Your task to perform on an android device: search for starred emails in the gmail app Image 0: 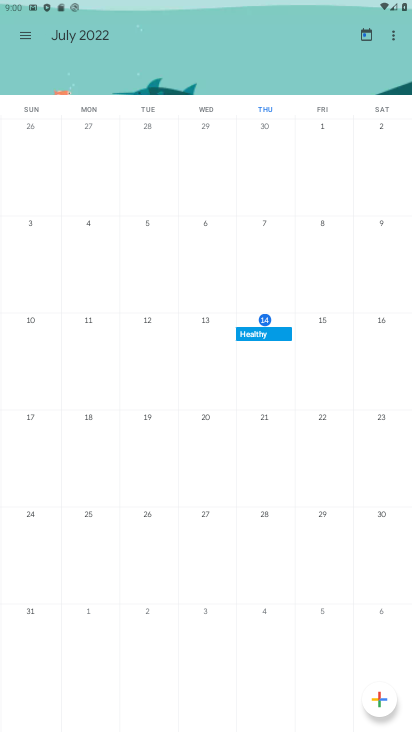
Step 0: press home button
Your task to perform on an android device: search for starred emails in the gmail app Image 1: 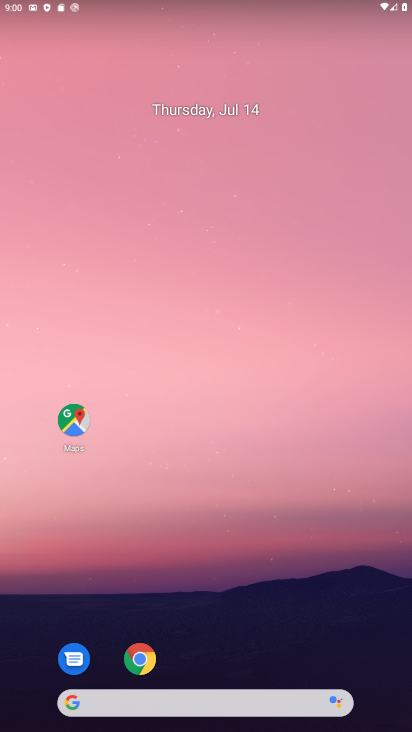
Step 1: drag from (281, 644) to (340, 19)
Your task to perform on an android device: search for starred emails in the gmail app Image 2: 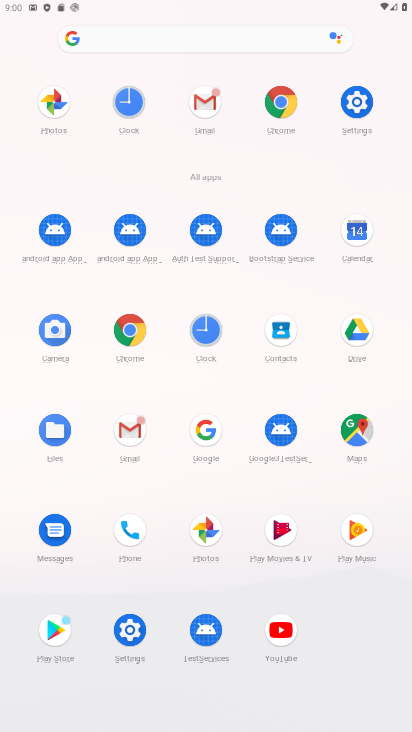
Step 2: click (210, 107)
Your task to perform on an android device: search for starred emails in the gmail app Image 3: 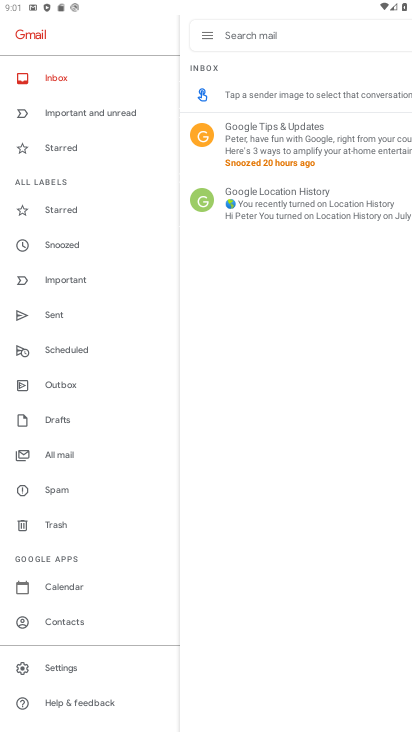
Step 3: click (56, 209)
Your task to perform on an android device: search for starred emails in the gmail app Image 4: 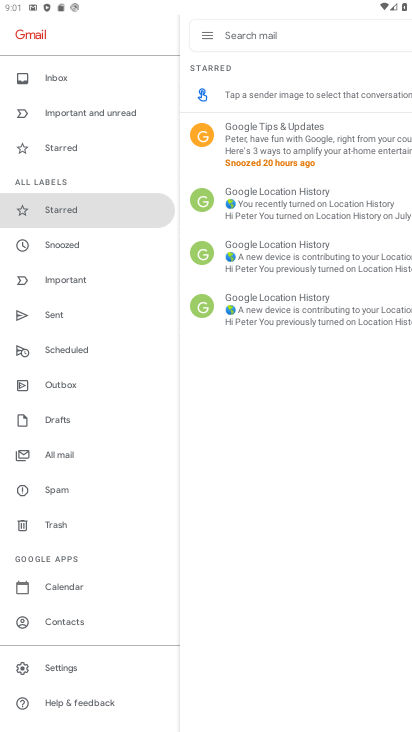
Step 4: task complete